Your task to perform on an android device: Go to ESPN.com Image 0: 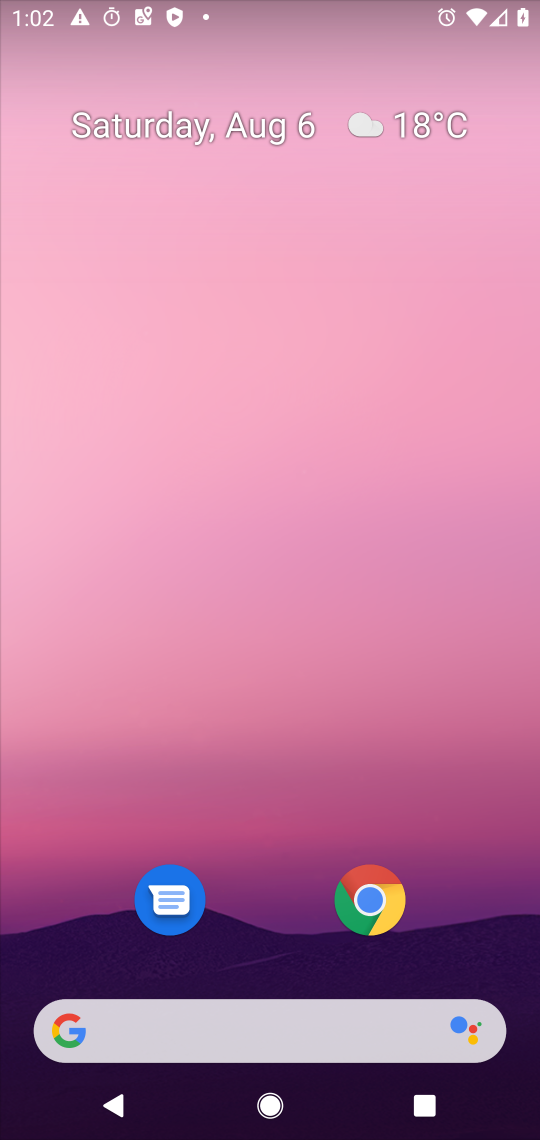
Step 0: click (401, 904)
Your task to perform on an android device: Go to ESPN.com Image 1: 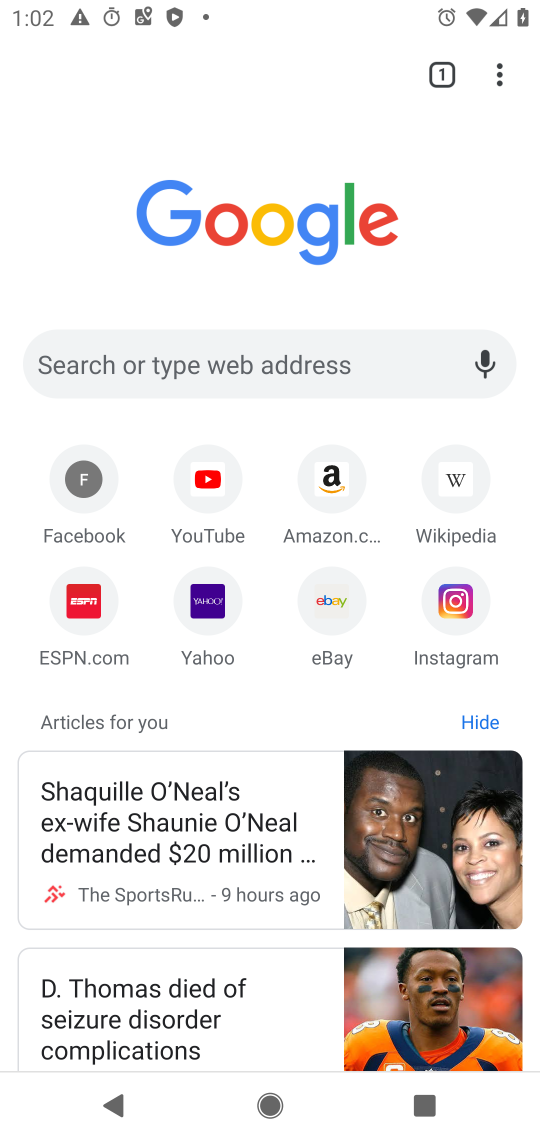
Step 1: click (81, 592)
Your task to perform on an android device: Go to ESPN.com Image 2: 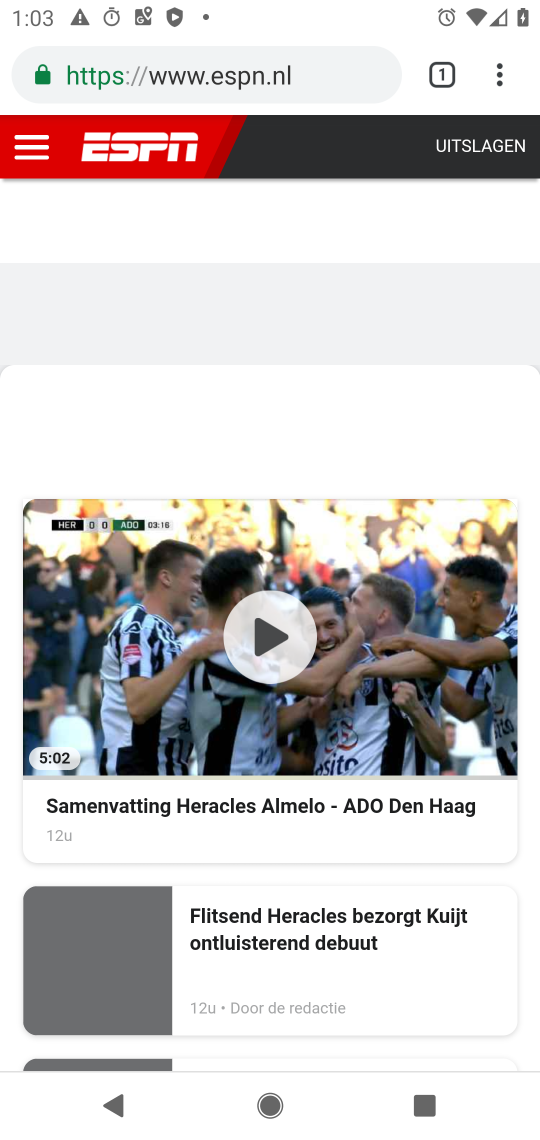
Step 2: task complete